Your task to perform on an android device: Go to ESPN.com Image 0: 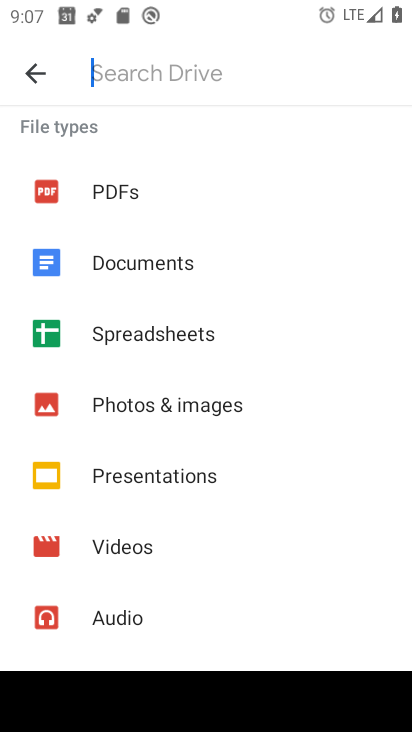
Step 0: press home button
Your task to perform on an android device: Go to ESPN.com Image 1: 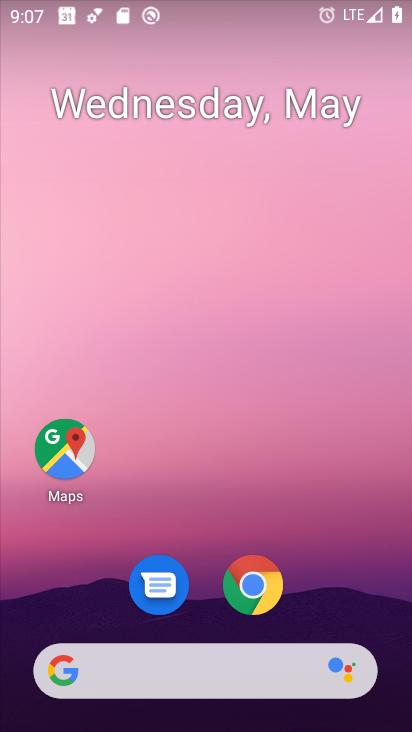
Step 1: click (177, 672)
Your task to perform on an android device: Go to ESPN.com Image 2: 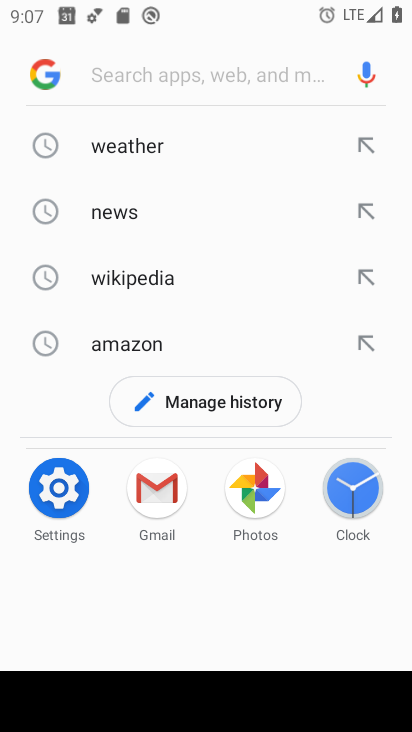
Step 2: type "espn.com"
Your task to perform on an android device: Go to ESPN.com Image 3: 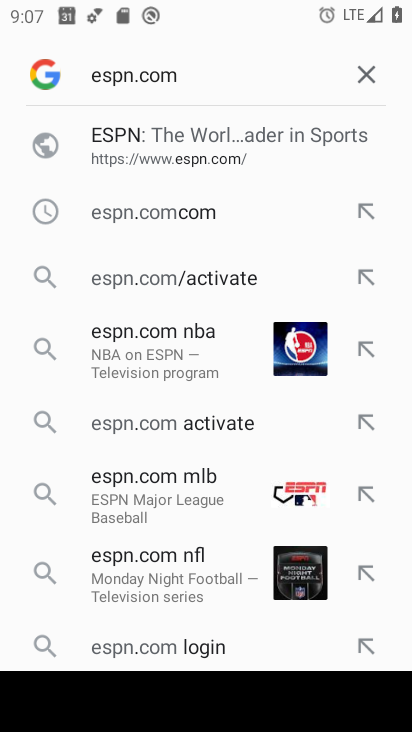
Step 3: click (126, 130)
Your task to perform on an android device: Go to ESPN.com Image 4: 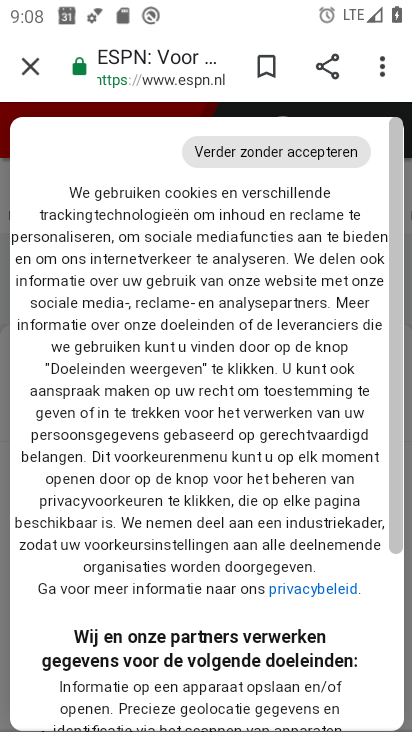
Step 4: task complete